Your task to perform on an android device: check battery use Image 0: 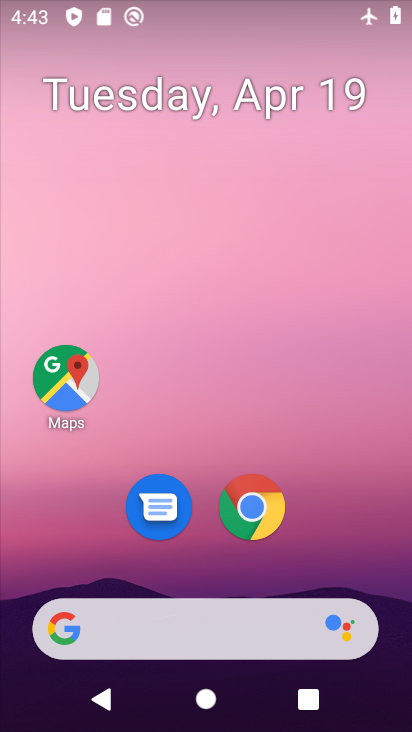
Step 0: drag from (359, 529) to (326, 101)
Your task to perform on an android device: check battery use Image 1: 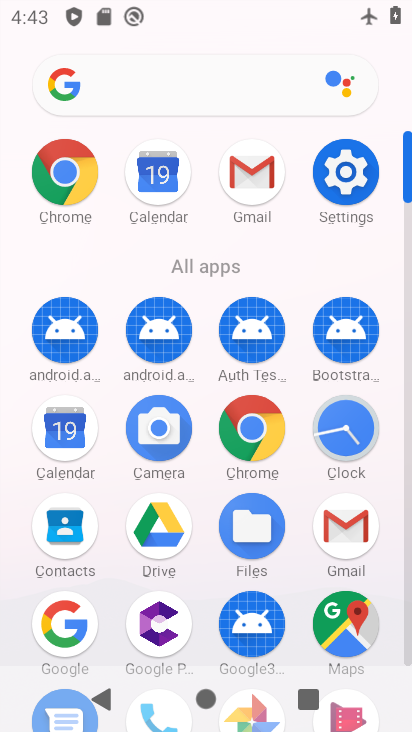
Step 1: click (359, 167)
Your task to perform on an android device: check battery use Image 2: 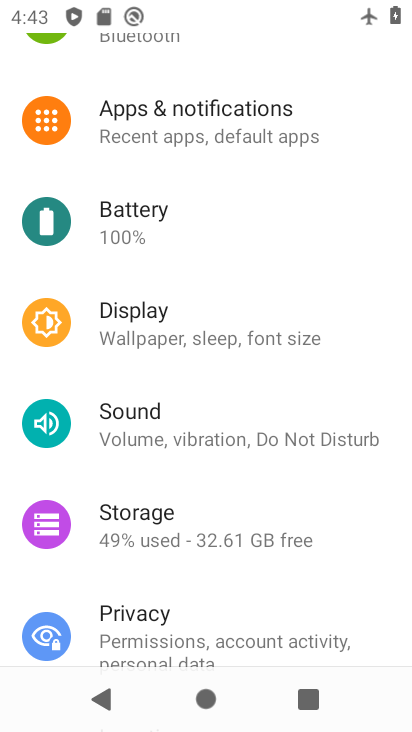
Step 2: click (247, 215)
Your task to perform on an android device: check battery use Image 3: 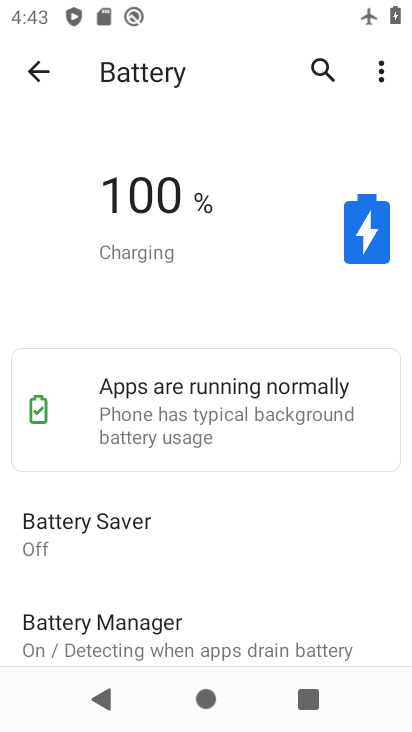
Step 3: click (381, 74)
Your task to perform on an android device: check battery use Image 4: 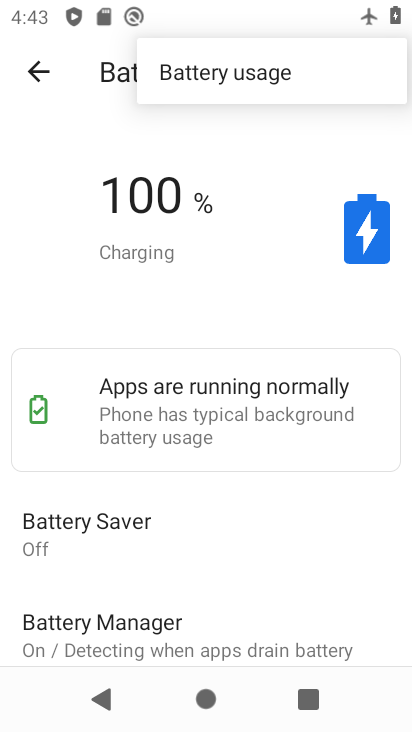
Step 4: click (281, 63)
Your task to perform on an android device: check battery use Image 5: 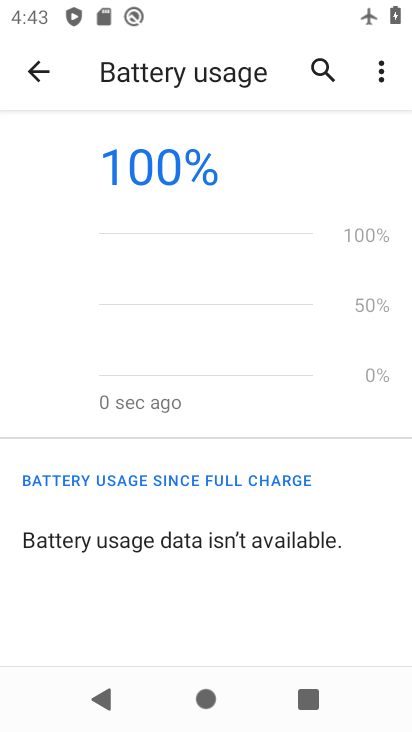
Step 5: task complete